Your task to perform on an android device: Open Google Chrome and open the bookmarks view Image 0: 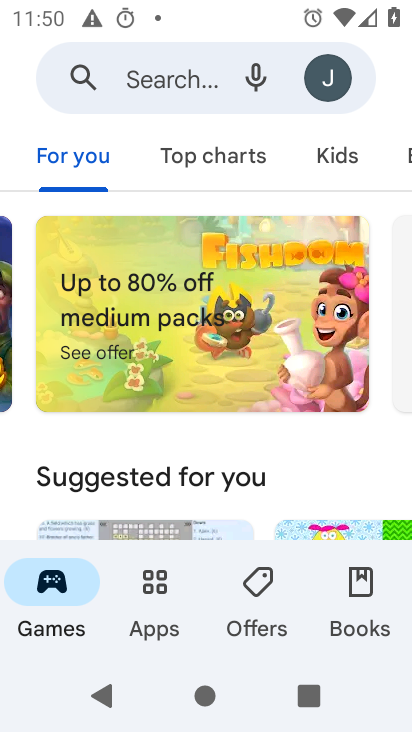
Step 0: press back button
Your task to perform on an android device: Open Google Chrome and open the bookmarks view Image 1: 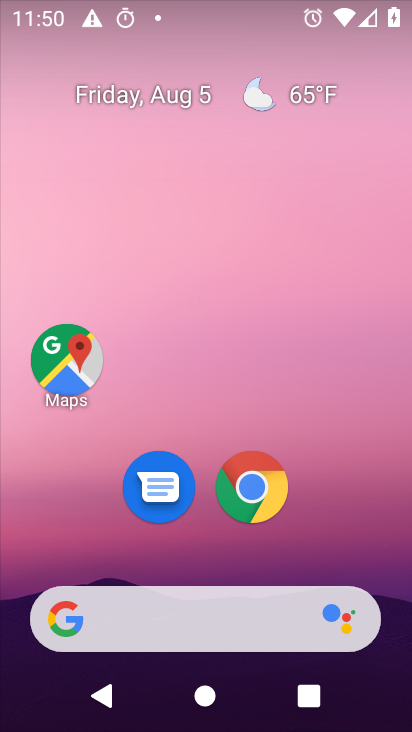
Step 1: click (258, 475)
Your task to perform on an android device: Open Google Chrome and open the bookmarks view Image 2: 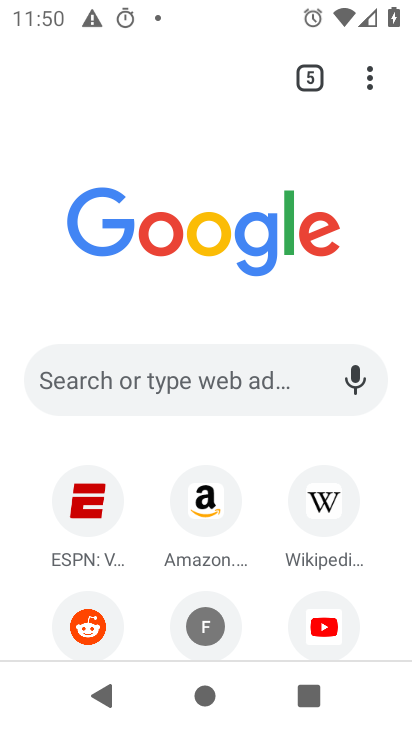
Step 2: task complete